Your task to perform on an android device: Go to sound settings Image 0: 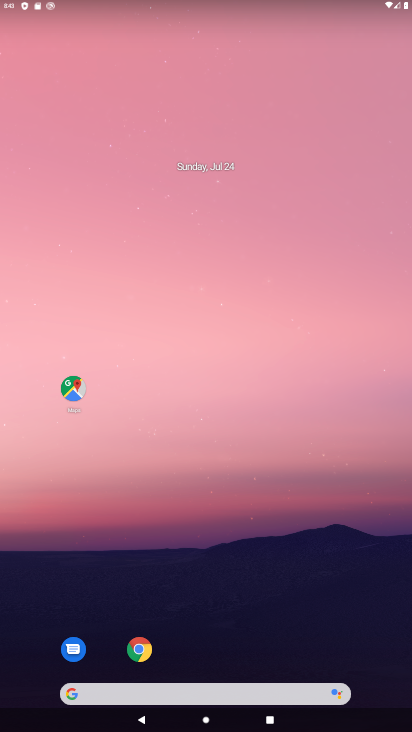
Step 0: drag from (36, 684) to (171, 101)
Your task to perform on an android device: Go to sound settings Image 1: 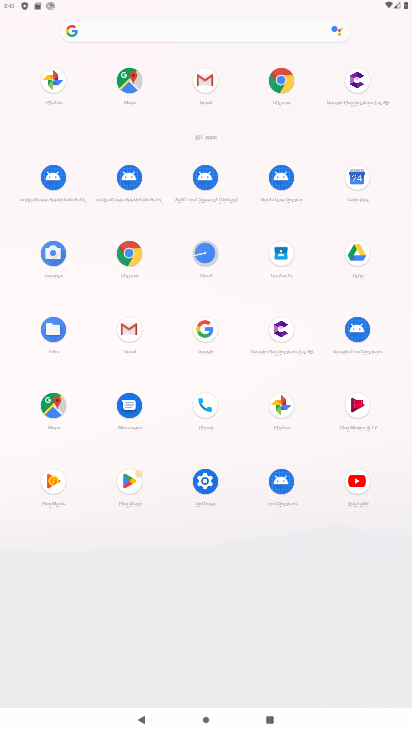
Step 1: click (208, 485)
Your task to perform on an android device: Go to sound settings Image 2: 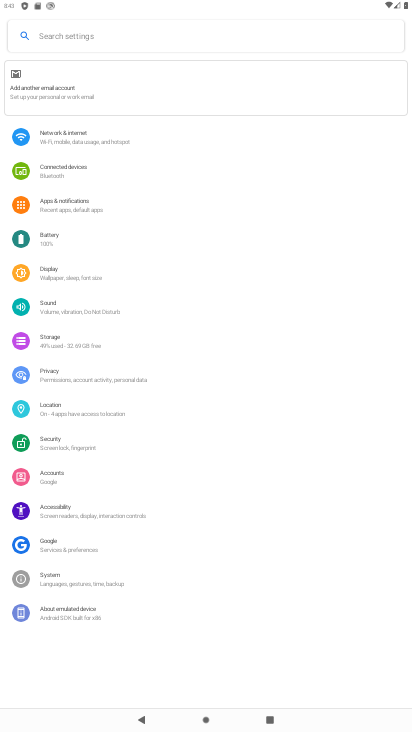
Step 2: click (58, 299)
Your task to perform on an android device: Go to sound settings Image 3: 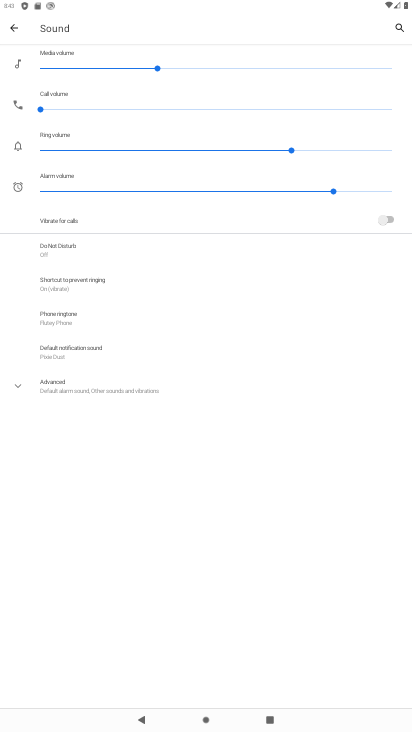
Step 3: task complete